Your task to perform on an android device: turn off notifications settings in the gmail app Image 0: 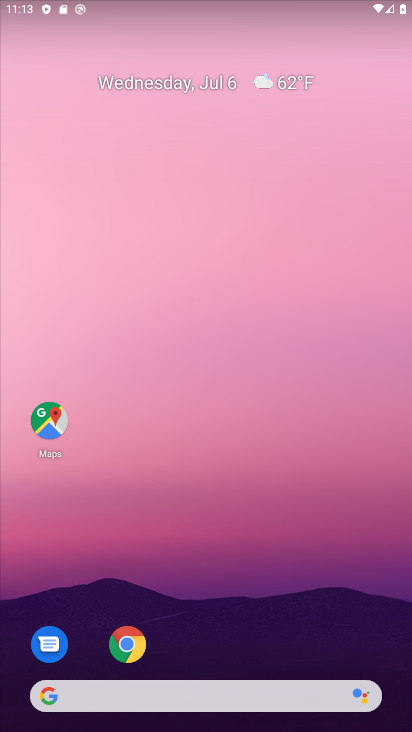
Step 0: drag from (255, 635) to (221, 129)
Your task to perform on an android device: turn off notifications settings in the gmail app Image 1: 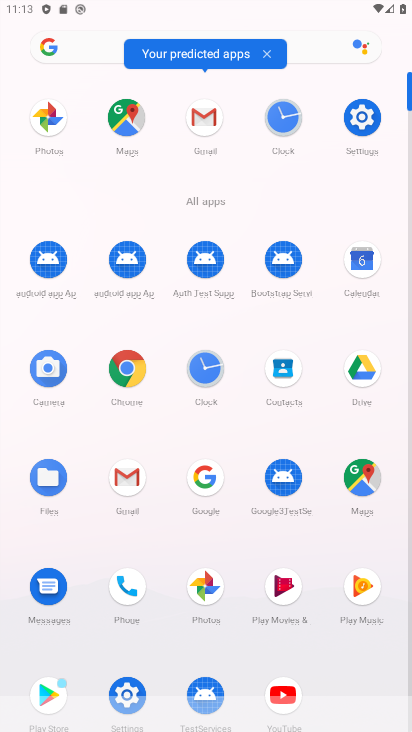
Step 1: click (134, 495)
Your task to perform on an android device: turn off notifications settings in the gmail app Image 2: 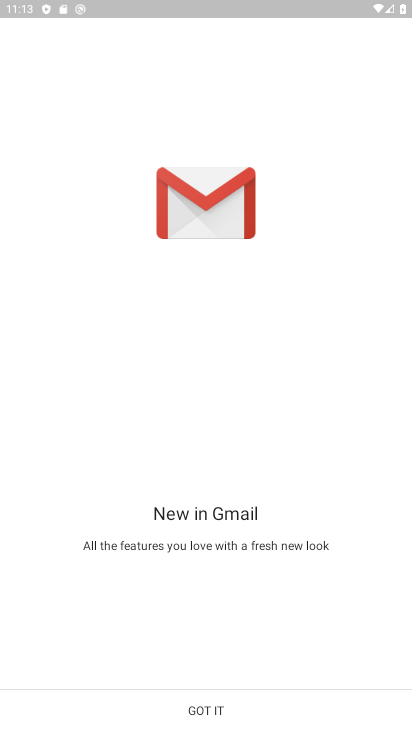
Step 2: click (203, 707)
Your task to perform on an android device: turn off notifications settings in the gmail app Image 3: 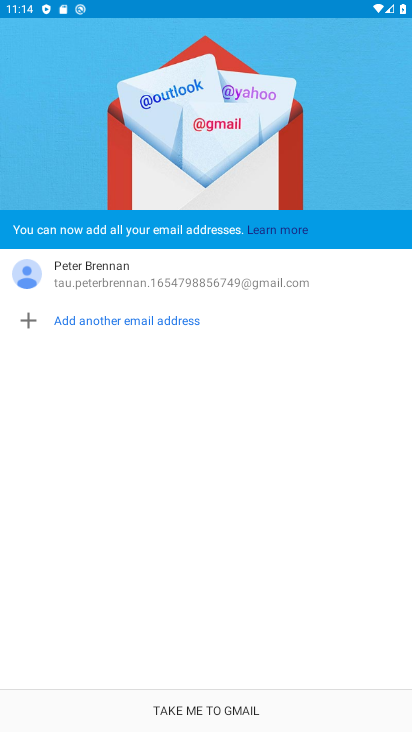
Step 3: click (239, 704)
Your task to perform on an android device: turn off notifications settings in the gmail app Image 4: 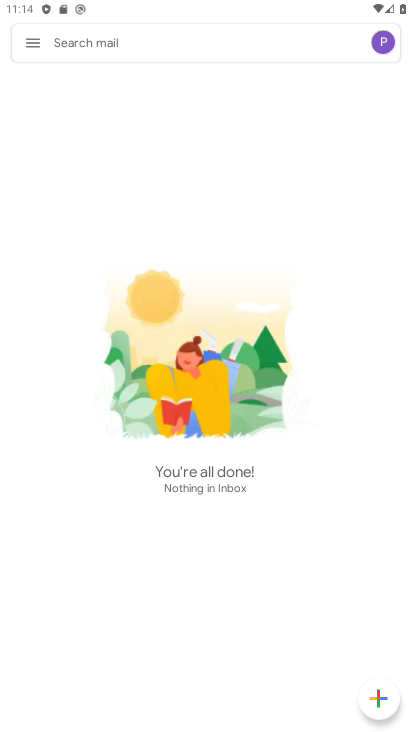
Step 4: click (35, 41)
Your task to perform on an android device: turn off notifications settings in the gmail app Image 5: 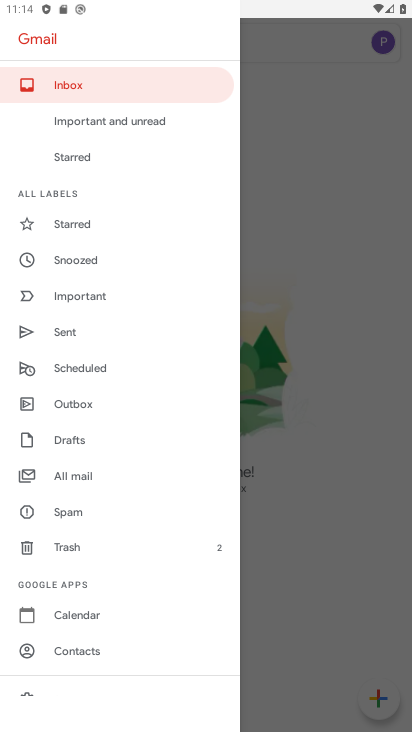
Step 5: drag from (112, 582) to (85, 280)
Your task to perform on an android device: turn off notifications settings in the gmail app Image 6: 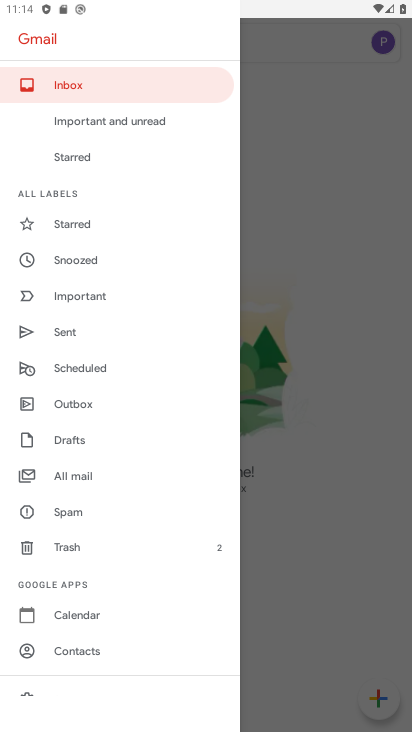
Step 6: drag from (62, 622) to (78, 189)
Your task to perform on an android device: turn off notifications settings in the gmail app Image 7: 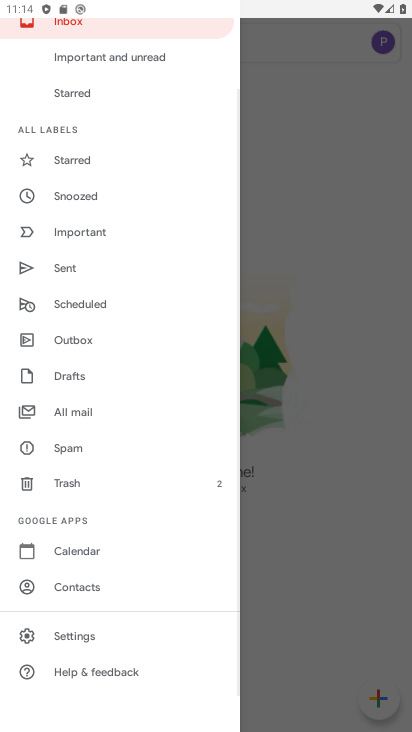
Step 7: click (109, 632)
Your task to perform on an android device: turn off notifications settings in the gmail app Image 8: 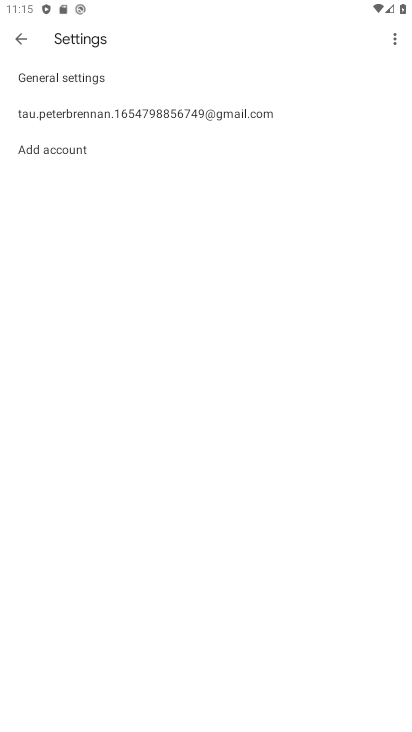
Step 8: click (168, 84)
Your task to perform on an android device: turn off notifications settings in the gmail app Image 9: 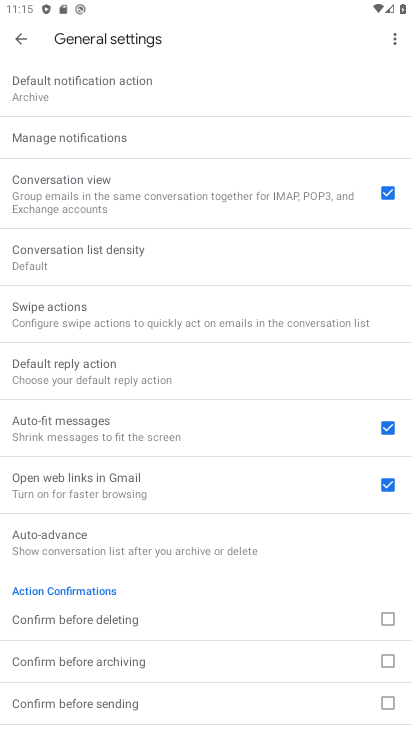
Step 9: click (185, 137)
Your task to perform on an android device: turn off notifications settings in the gmail app Image 10: 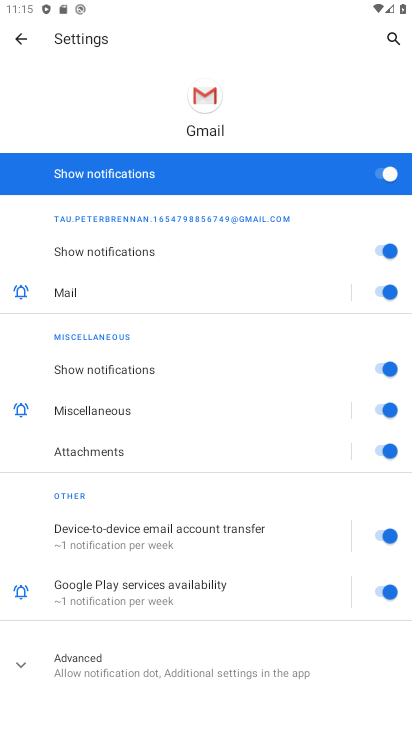
Step 10: click (378, 180)
Your task to perform on an android device: turn off notifications settings in the gmail app Image 11: 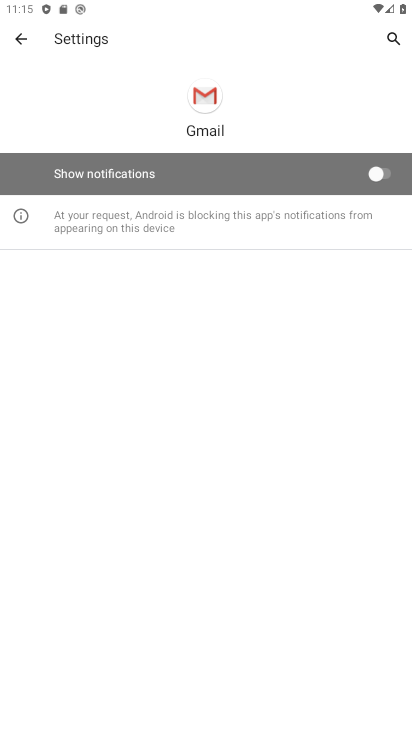
Step 11: task complete